Your task to perform on an android device: allow notifications from all sites in the chrome app Image 0: 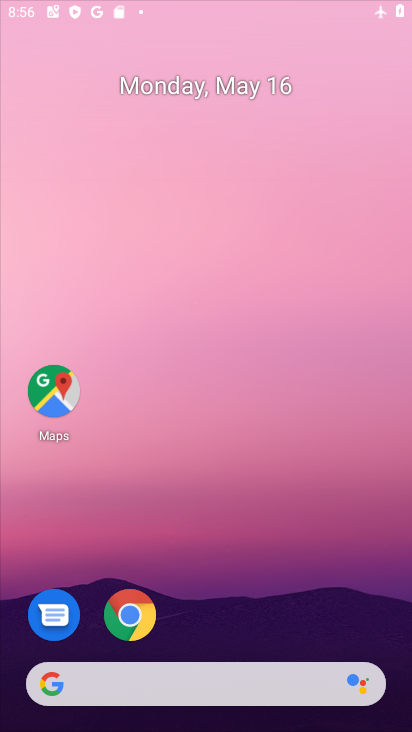
Step 0: drag from (259, 4) to (257, 505)
Your task to perform on an android device: allow notifications from all sites in the chrome app Image 1: 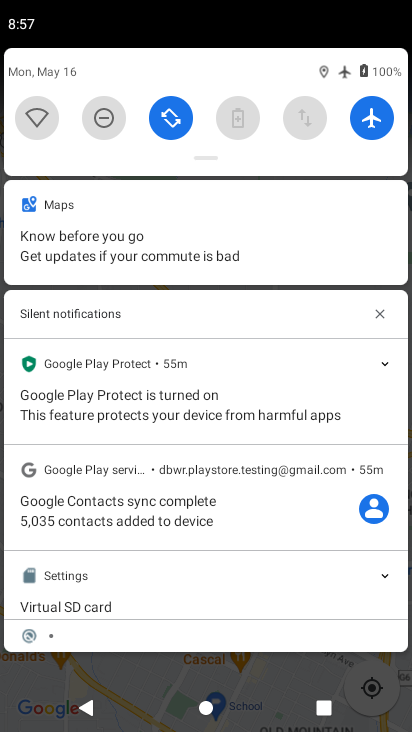
Step 1: click (384, 114)
Your task to perform on an android device: allow notifications from all sites in the chrome app Image 2: 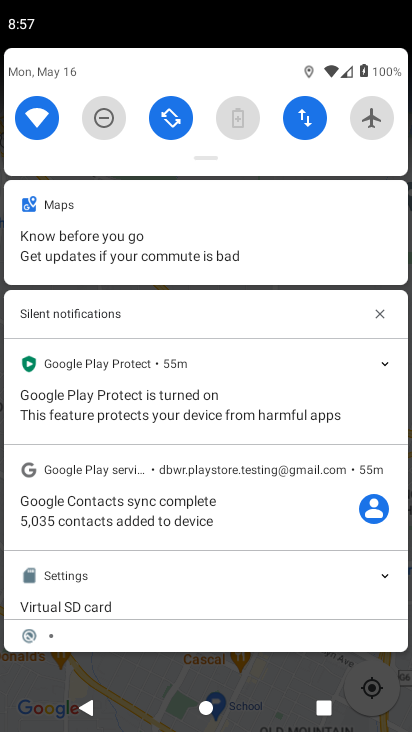
Step 2: press home button
Your task to perform on an android device: allow notifications from all sites in the chrome app Image 3: 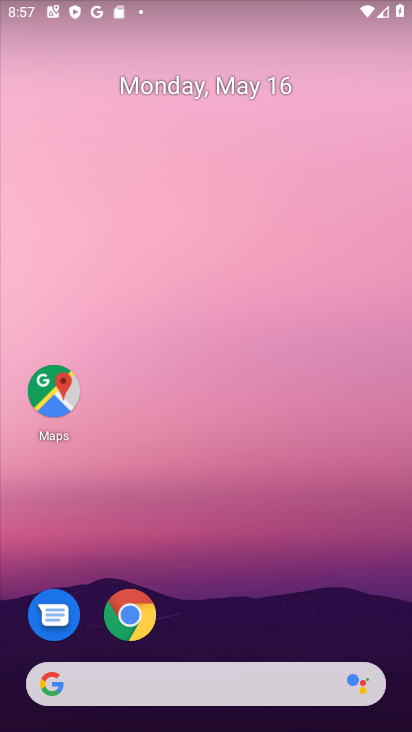
Step 3: click (145, 613)
Your task to perform on an android device: allow notifications from all sites in the chrome app Image 4: 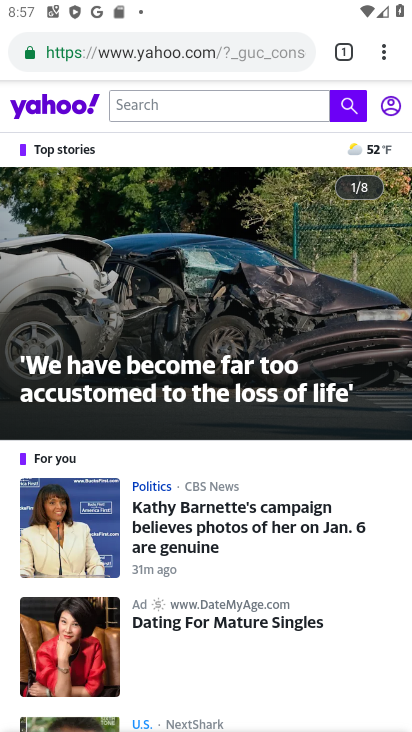
Step 4: click (389, 51)
Your task to perform on an android device: allow notifications from all sites in the chrome app Image 5: 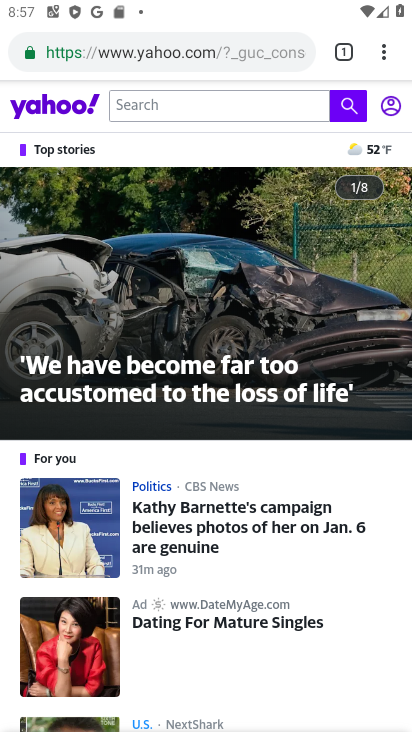
Step 5: click (379, 55)
Your task to perform on an android device: allow notifications from all sites in the chrome app Image 6: 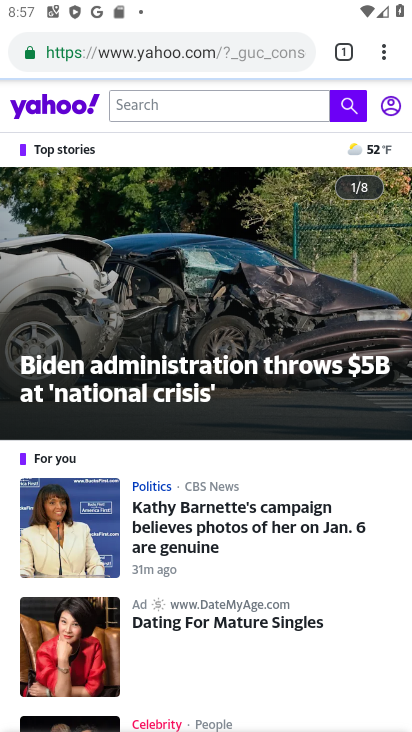
Step 6: click (382, 55)
Your task to perform on an android device: allow notifications from all sites in the chrome app Image 7: 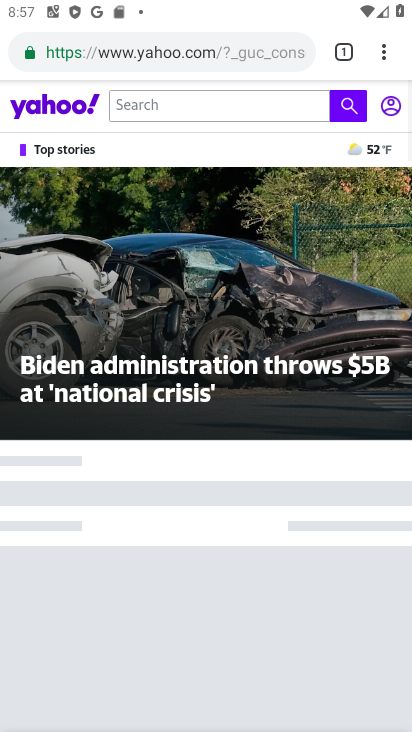
Step 7: click (389, 56)
Your task to perform on an android device: allow notifications from all sites in the chrome app Image 8: 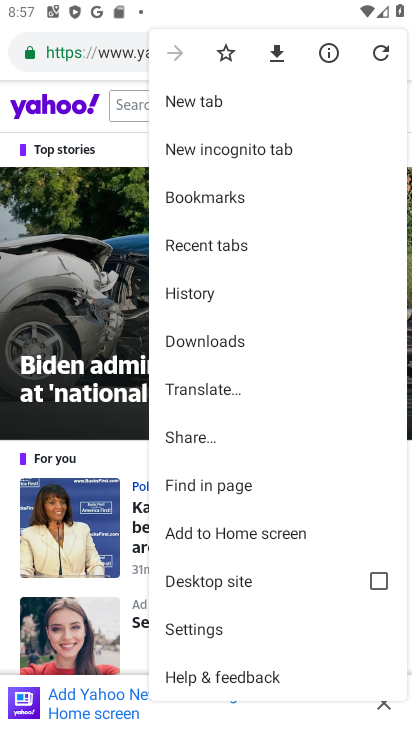
Step 8: click (201, 629)
Your task to perform on an android device: allow notifications from all sites in the chrome app Image 9: 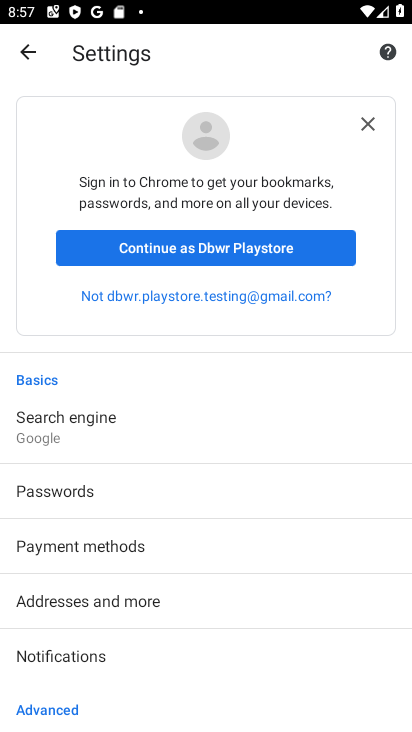
Step 9: drag from (47, 548) to (247, 214)
Your task to perform on an android device: allow notifications from all sites in the chrome app Image 10: 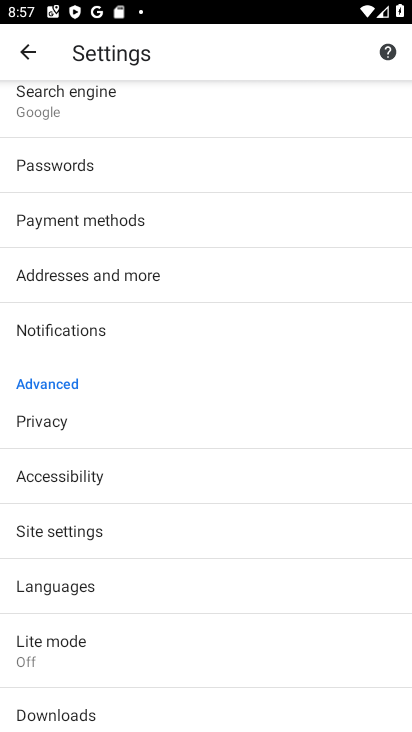
Step 10: click (90, 535)
Your task to perform on an android device: allow notifications from all sites in the chrome app Image 11: 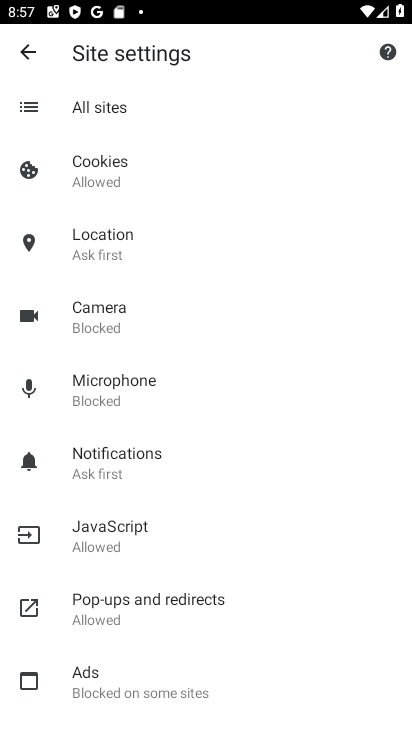
Step 11: drag from (16, 603) to (169, 239)
Your task to perform on an android device: allow notifications from all sites in the chrome app Image 12: 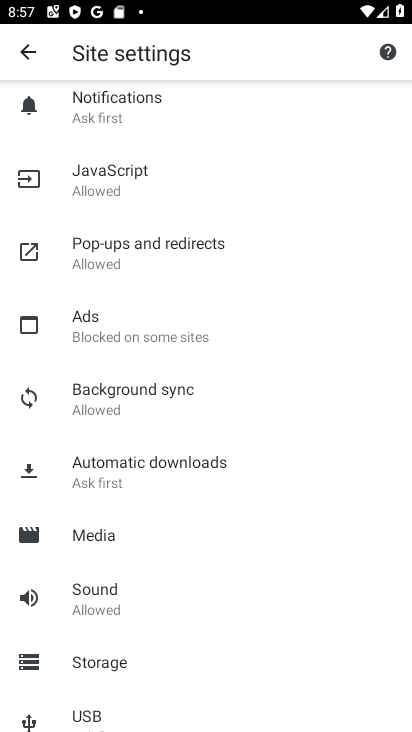
Step 12: drag from (60, 594) to (214, 182)
Your task to perform on an android device: allow notifications from all sites in the chrome app Image 13: 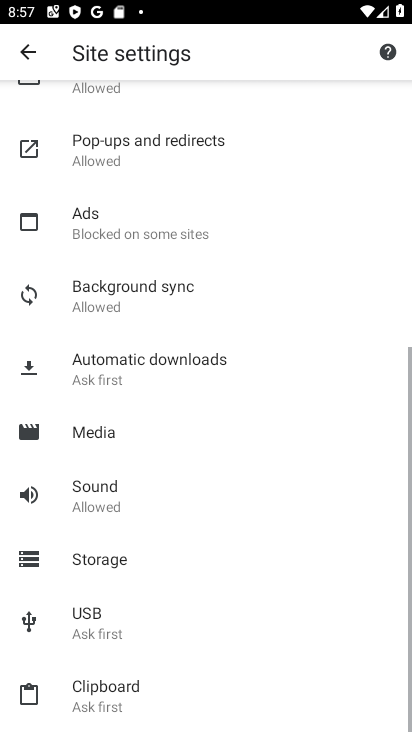
Step 13: drag from (235, 147) to (136, 687)
Your task to perform on an android device: allow notifications from all sites in the chrome app Image 14: 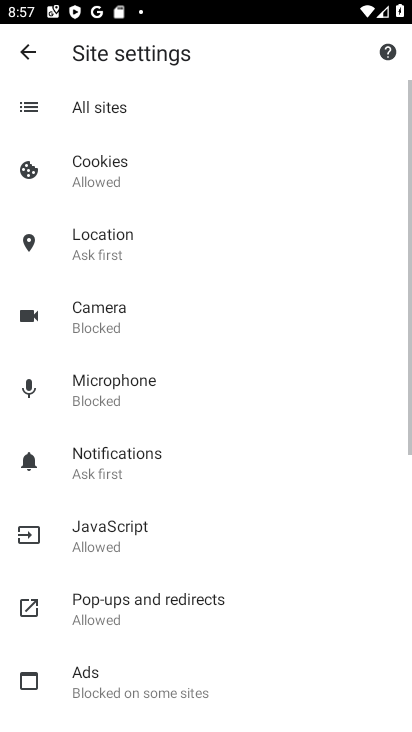
Step 14: click (134, 470)
Your task to perform on an android device: allow notifications from all sites in the chrome app Image 15: 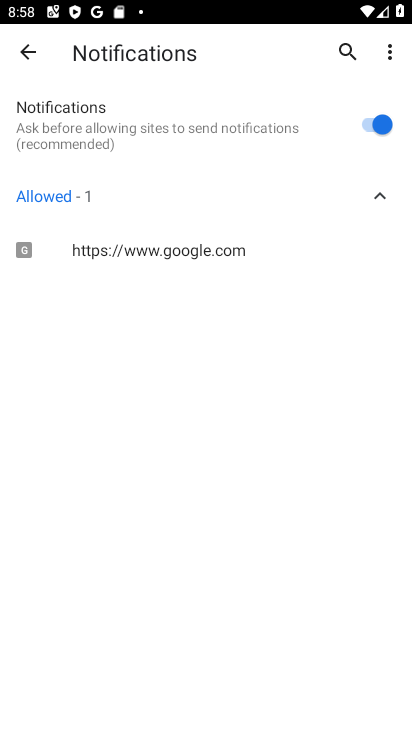
Step 15: task complete